Your task to perform on an android device: check google app version Image 0: 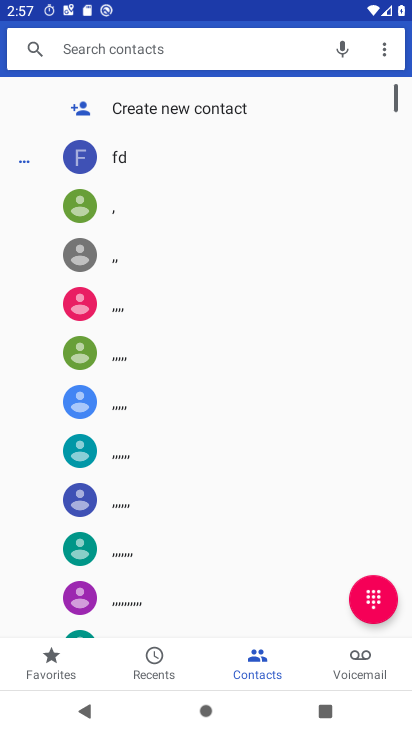
Step 0: press home button
Your task to perform on an android device: check google app version Image 1: 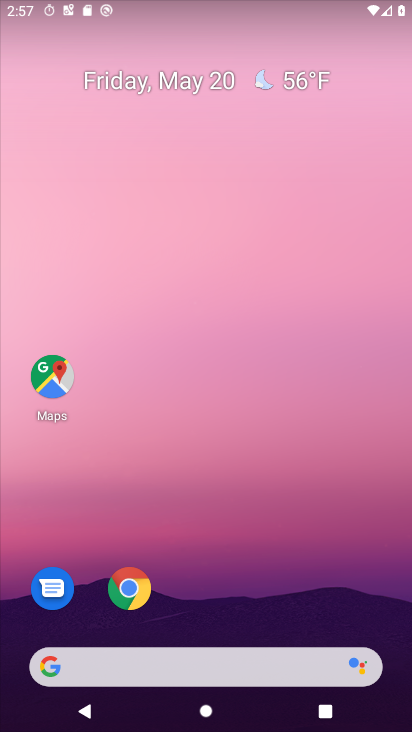
Step 1: drag from (12, 612) to (199, 164)
Your task to perform on an android device: check google app version Image 2: 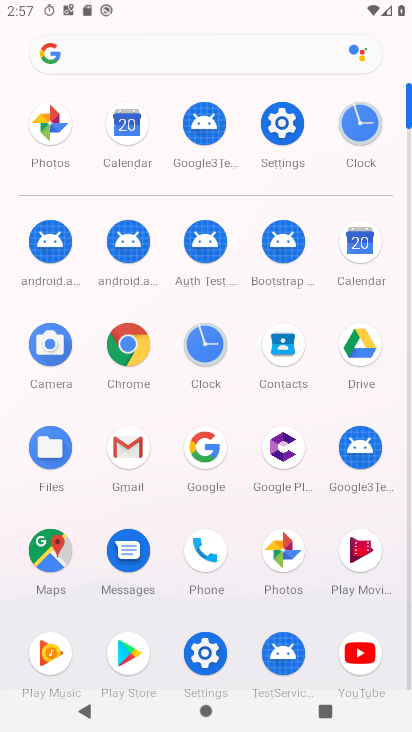
Step 2: click (365, 460)
Your task to perform on an android device: check google app version Image 3: 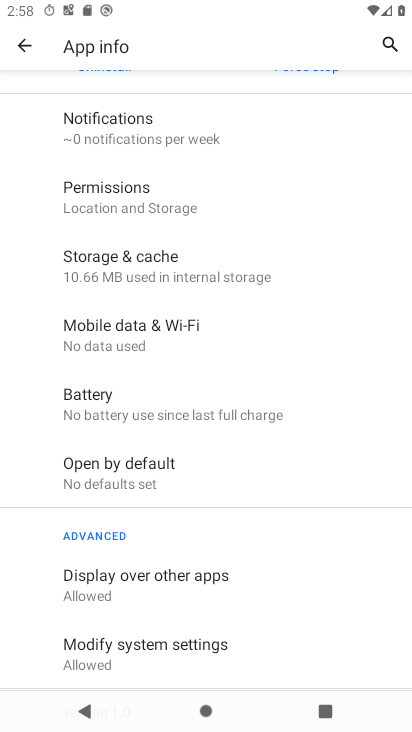
Step 3: drag from (7, 550) to (216, 158)
Your task to perform on an android device: check google app version Image 4: 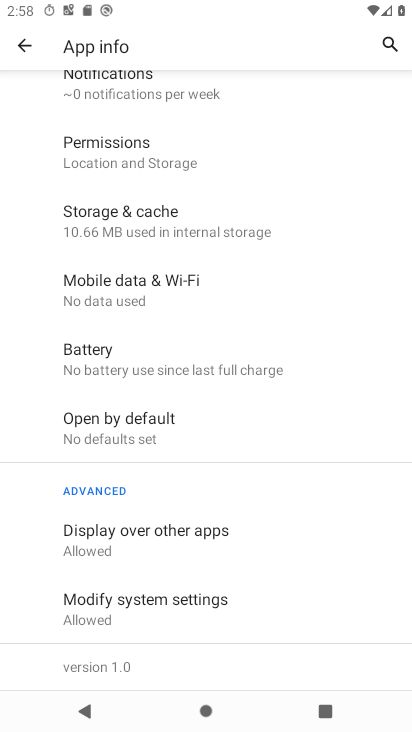
Step 4: click (124, 663)
Your task to perform on an android device: check google app version Image 5: 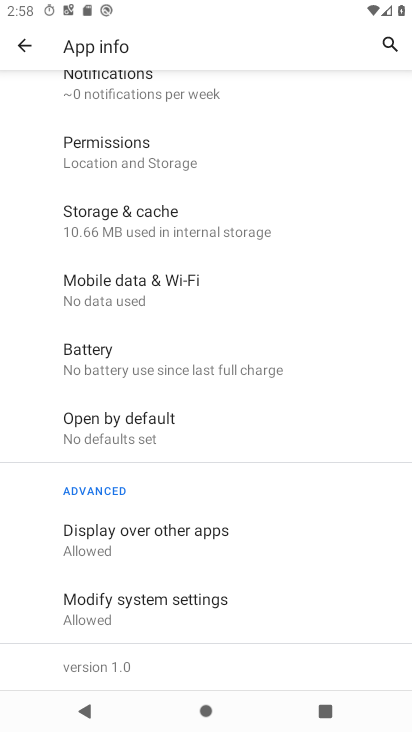
Step 5: task complete